Your task to perform on an android device: find snoozed emails in the gmail app Image 0: 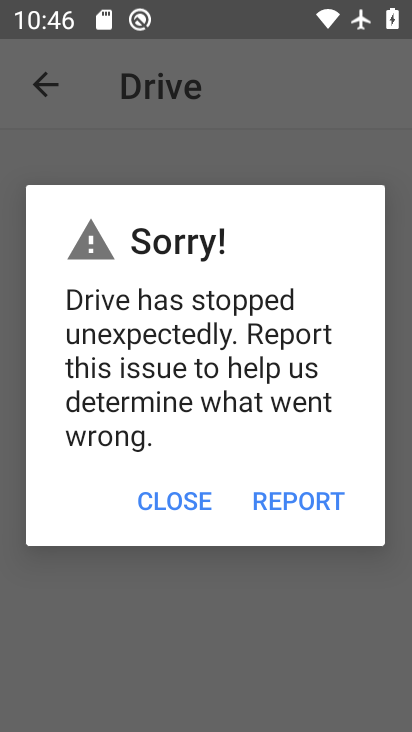
Step 0: click (187, 498)
Your task to perform on an android device: find snoozed emails in the gmail app Image 1: 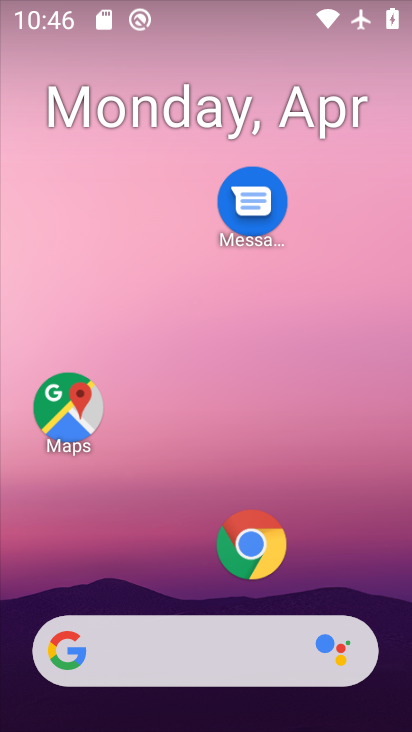
Step 1: press home button
Your task to perform on an android device: find snoozed emails in the gmail app Image 2: 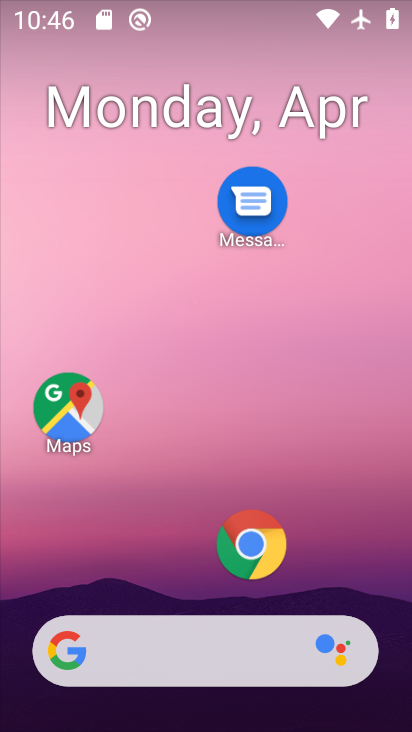
Step 2: drag from (196, 576) to (210, 84)
Your task to perform on an android device: find snoozed emails in the gmail app Image 3: 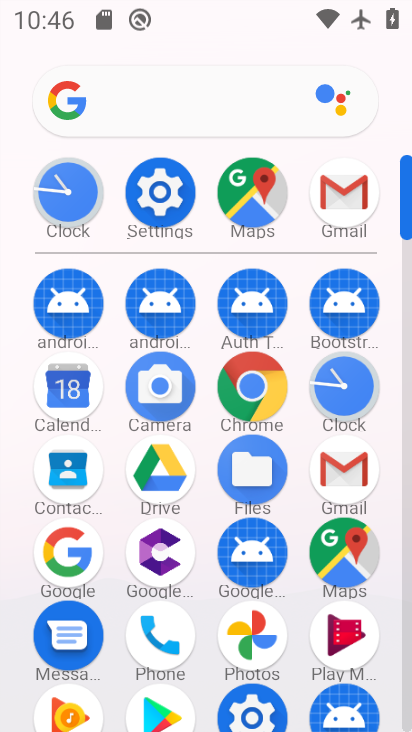
Step 3: click (341, 463)
Your task to perform on an android device: find snoozed emails in the gmail app Image 4: 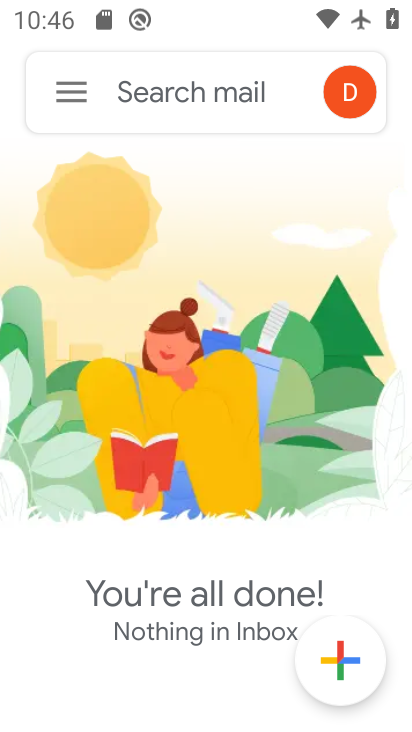
Step 4: click (59, 87)
Your task to perform on an android device: find snoozed emails in the gmail app Image 5: 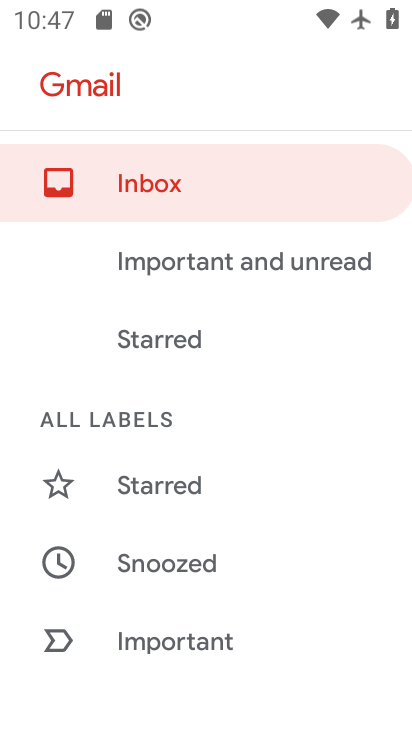
Step 5: click (233, 563)
Your task to perform on an android device: find snoozed emails in the gmail app Image 6: 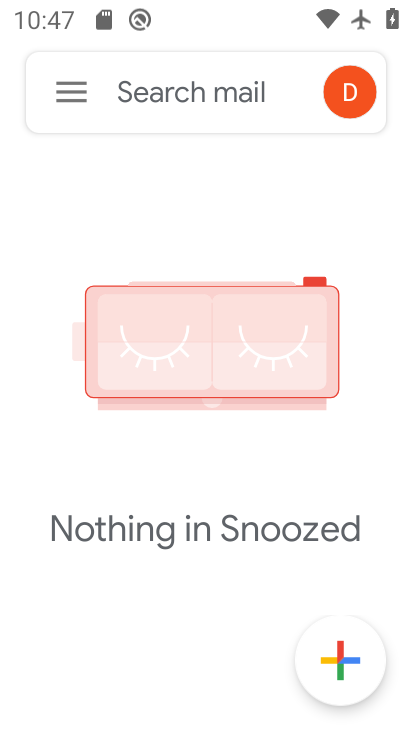
Step 6: task complete